Your task to perform on an android device: open app "The Home Depot" (install if not already installed) and go to login screen Image 0: 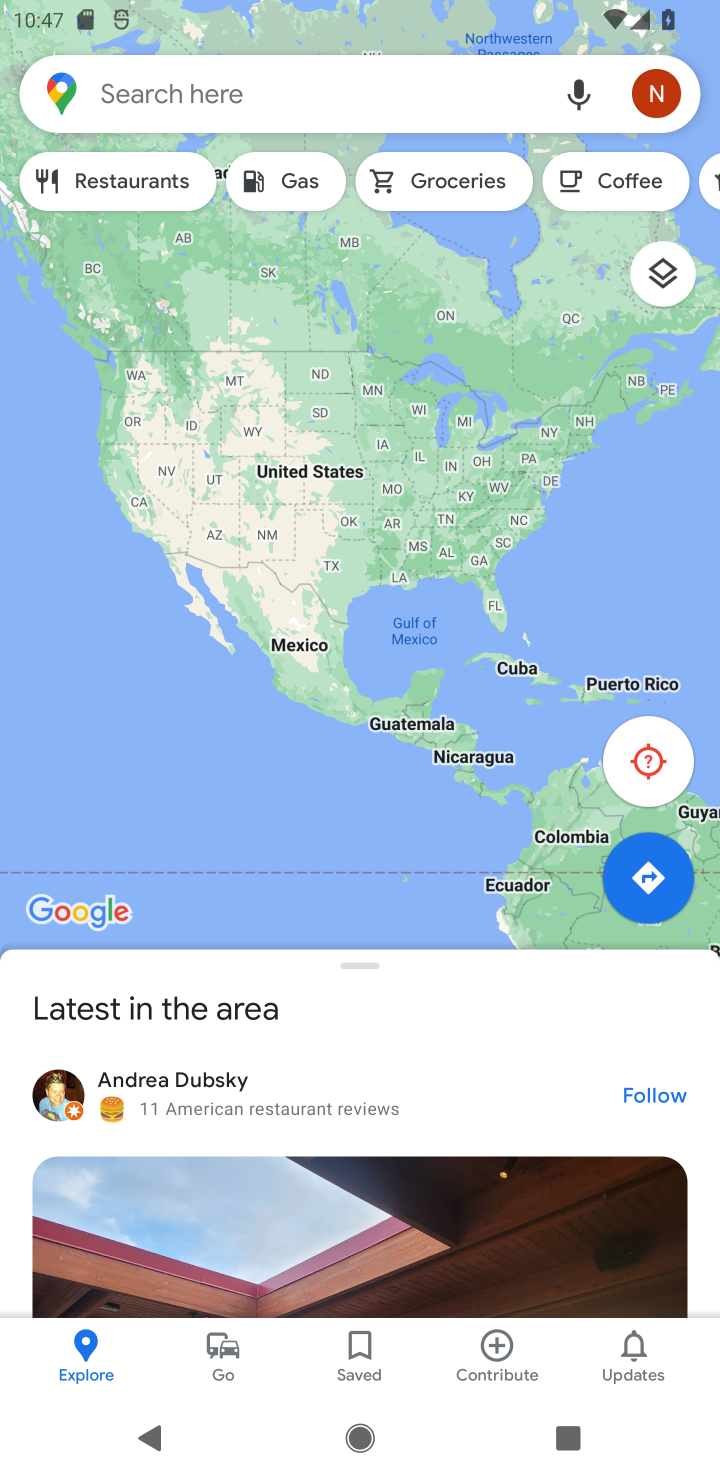
Step 0: press home button
Your task to perform on an android device: open app "The Home Depot" (install if not already installed) and go to login screen Image 1: 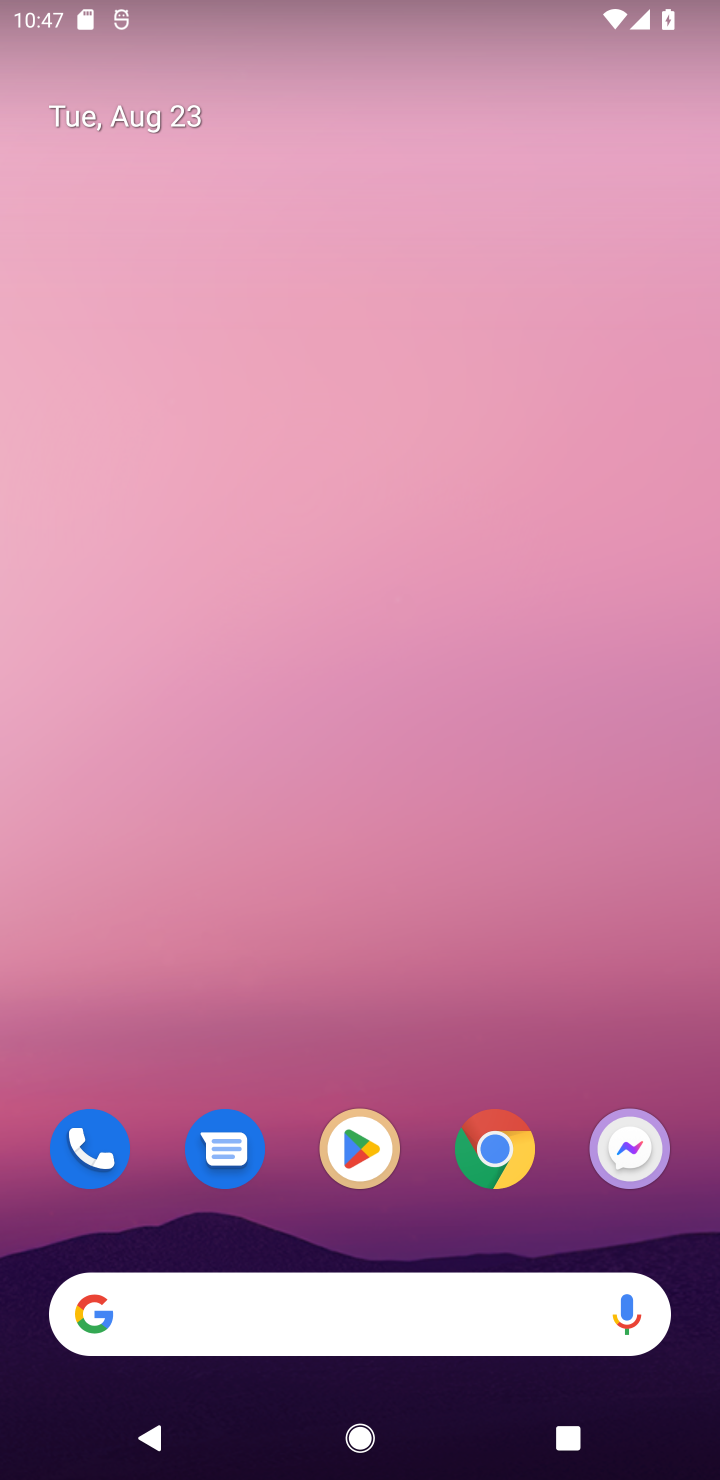
Step 1: click (371, 1127)
Your task to perform on an android device: open app "The Home Depot" (install if not already installed) and go to login screen Image 2: 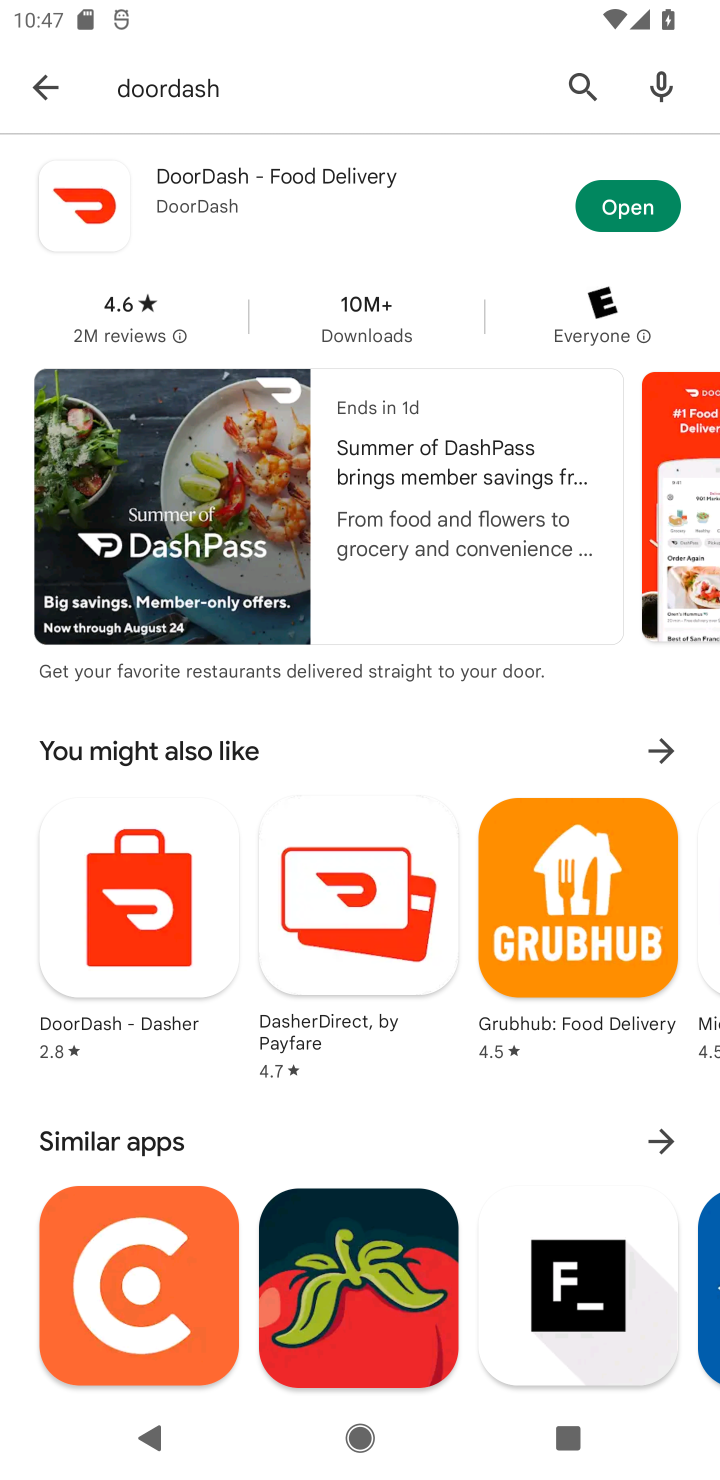
Step 2: click (571, 83)
Your task to perform on an android device: open app "The Home Depot" (install if not already installed) and go to login screen Image 3: 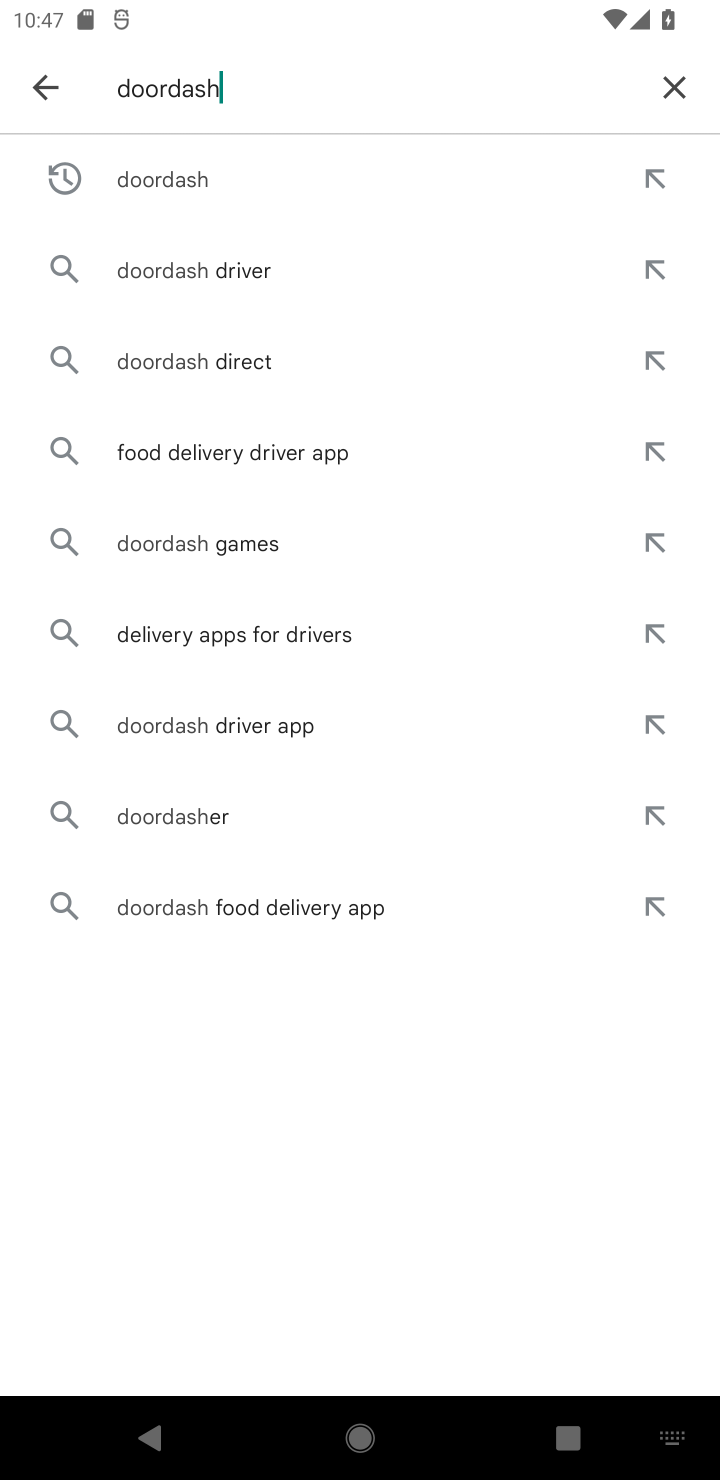
Step 3: click (666, 90)
Your task to perform on an android device: open app "The Home Depot" (install if not already installed) and go to login screen Image 4: 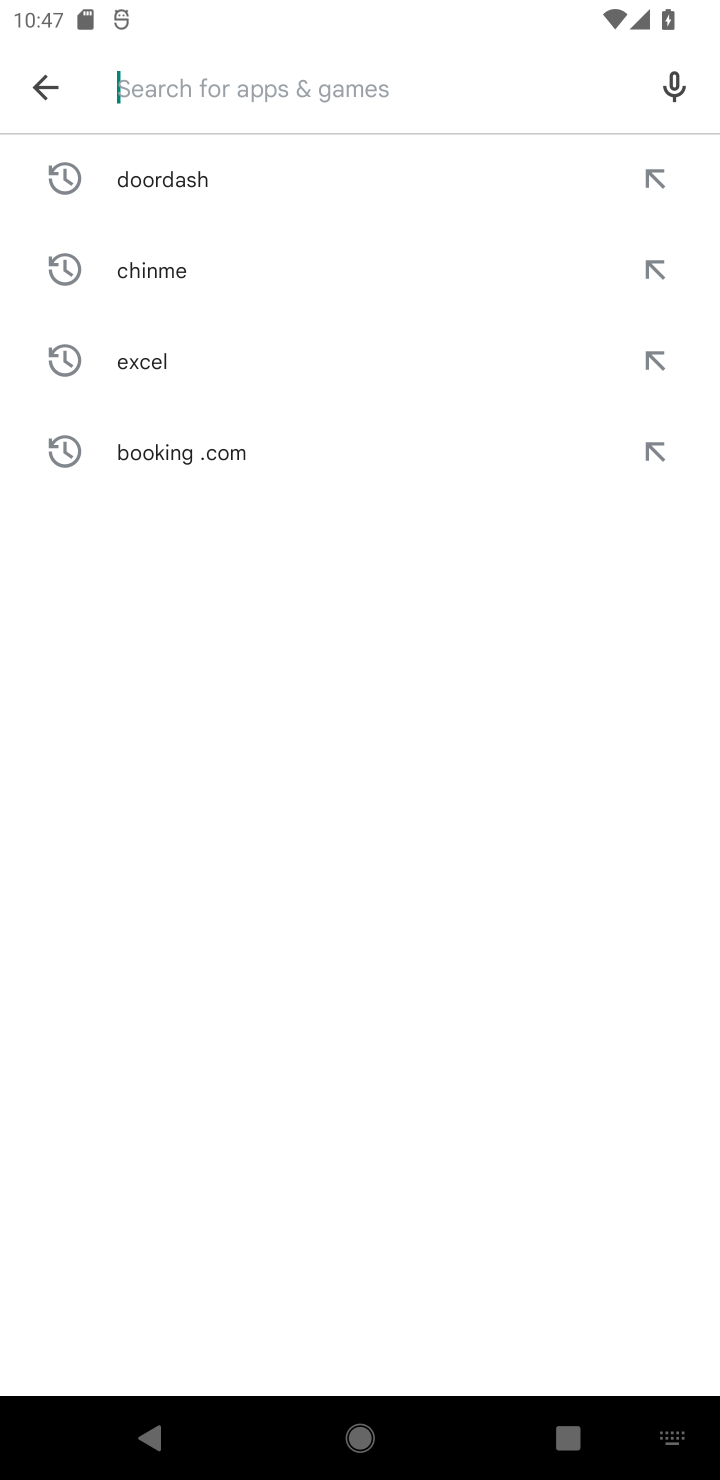
Step 4: type "the home depot"
Your task to perform on an android device: open app "The Home Depot" (install if not already installed) and go to login screen Image 5: 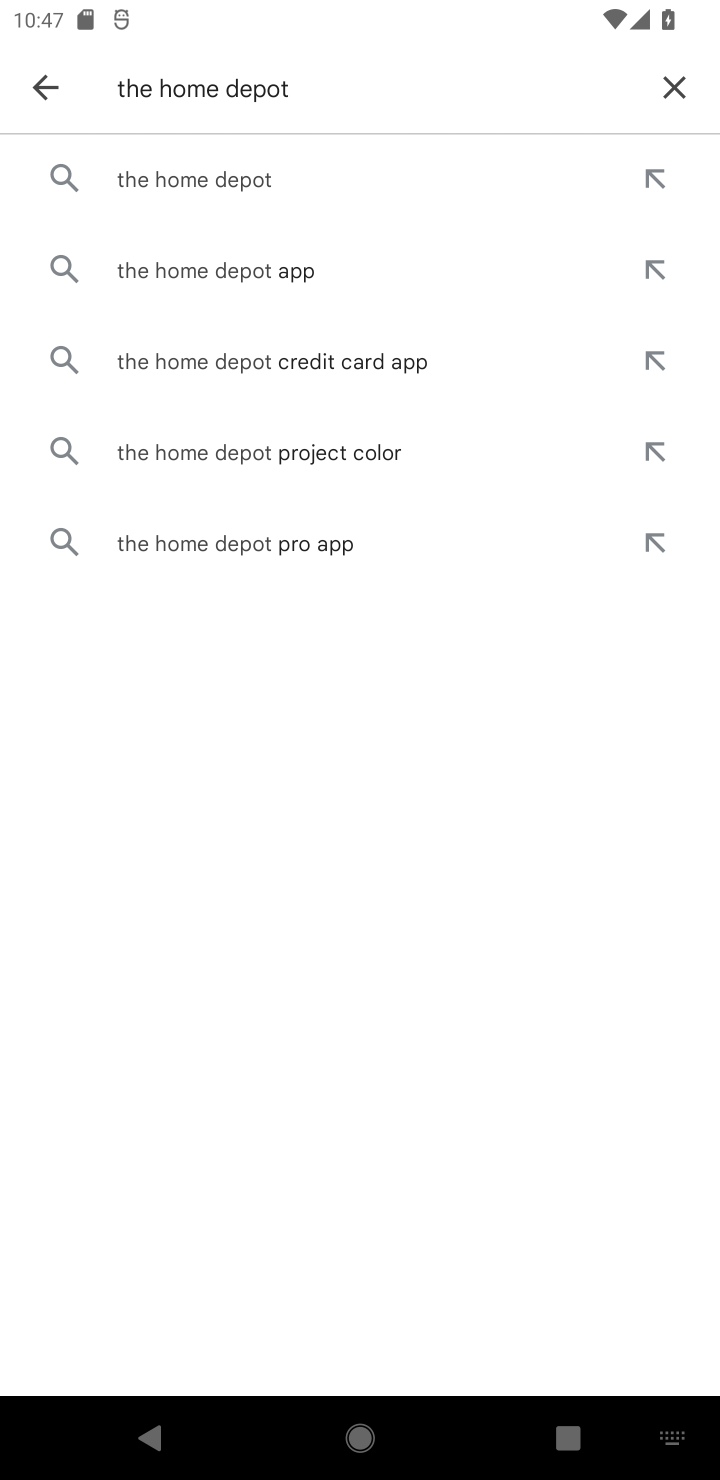
Step 5: click (123, 154)
Your task to perform on an android device: open app "The Home Depot" (install if not already installed) and go to login screen Image 6: 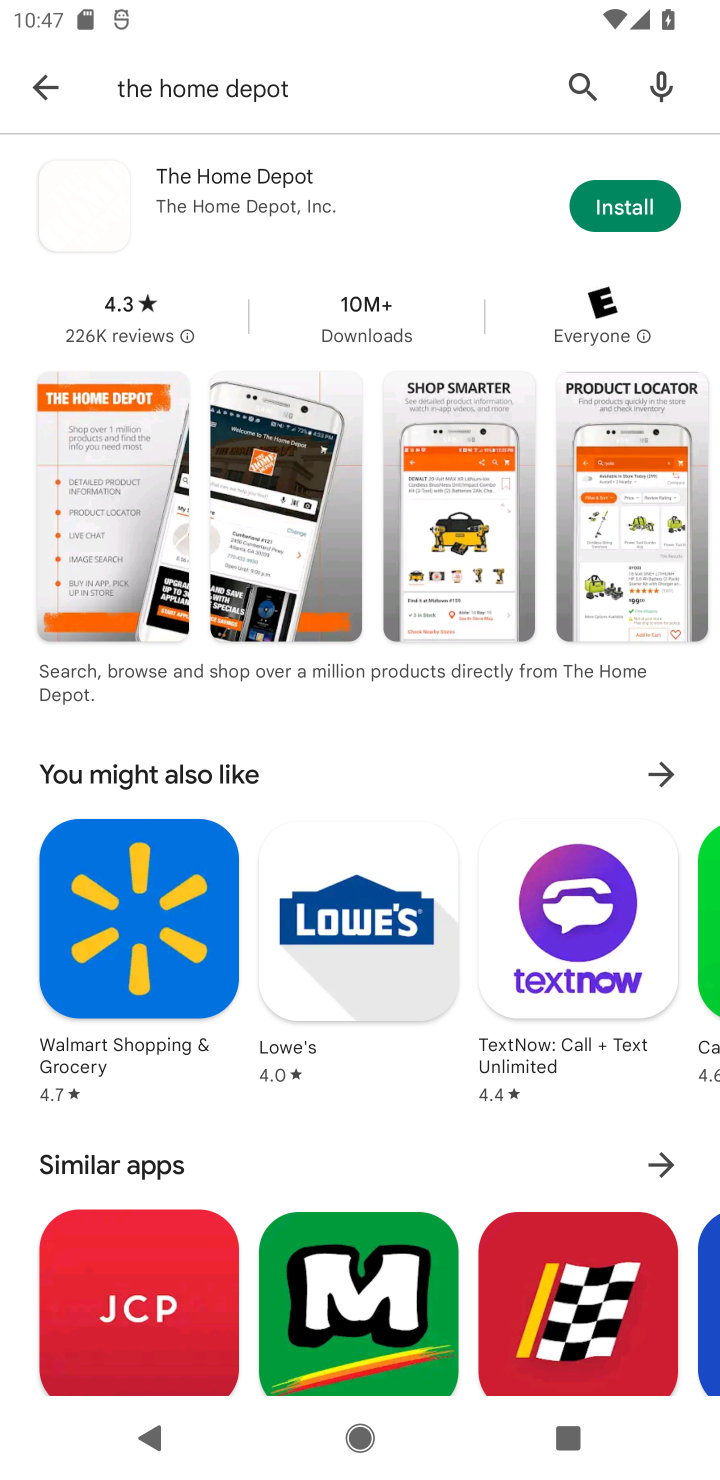
Step 6: click (572, 208)
Your task to perform on an android device: open app "The Home Depot" (install if not already installed) and go to login screen Image 7: 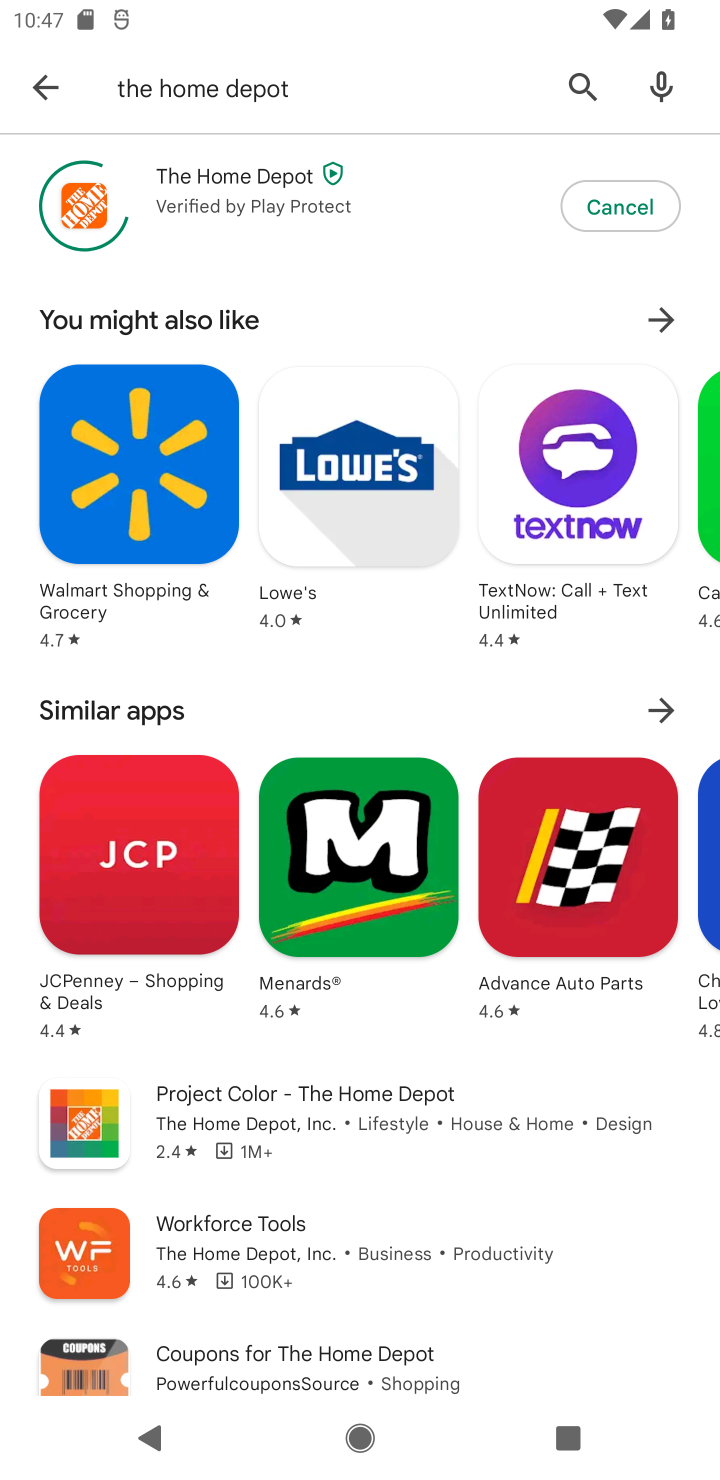
Step 7: task complete